Your task to perform on an android device: Go to Maps Image 0: 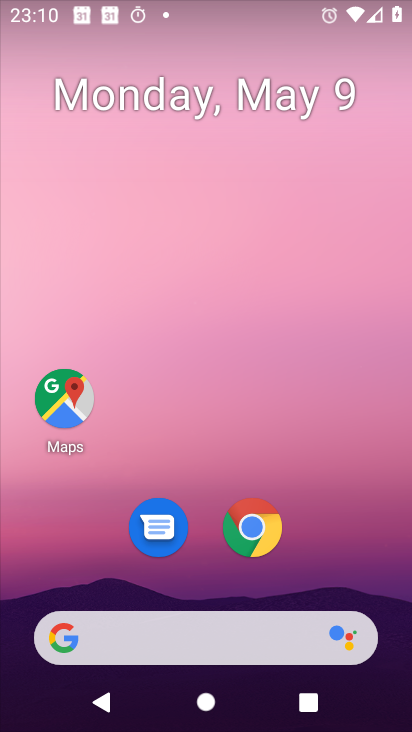
Step 0: click (60, 397)
Your task to perform on an android device: Go to Maps Image 1: 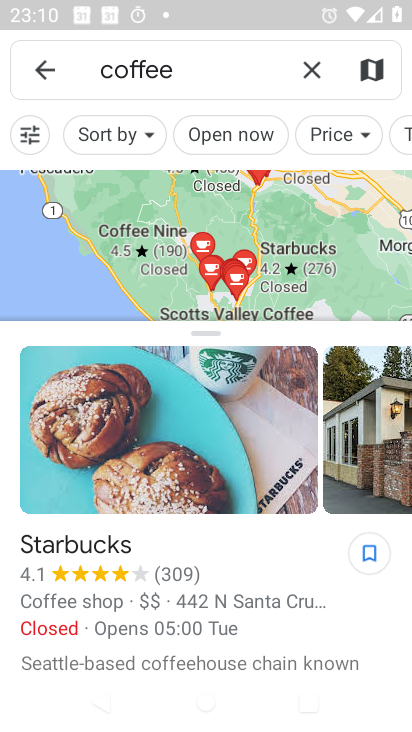
Step 1: task complete